Your task to perform on an android device: Go to sound settings Image 0: 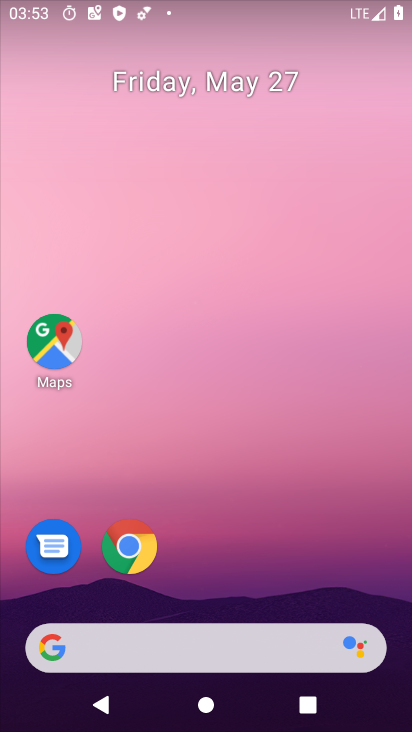
Step 0: drag from (367, 472) to (320, 201)
Your task to perform on an android device: Go to sound settings Image 1: 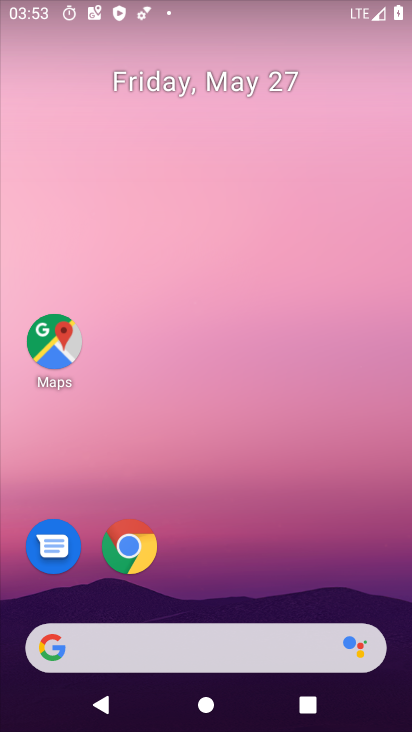
Step 1: drag from (387, 699) to (307, 170)
Your task to perform on an android device: Go to sound settings Image 2: 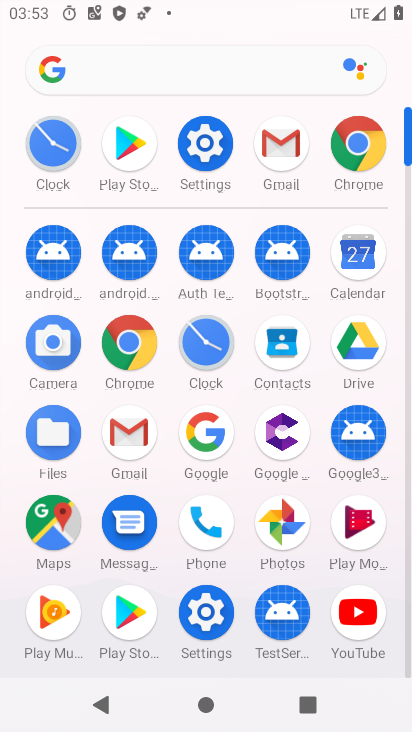
Step 2: click (205, 158)
Your task to perform on an android device: Go to sound settings Image 3: 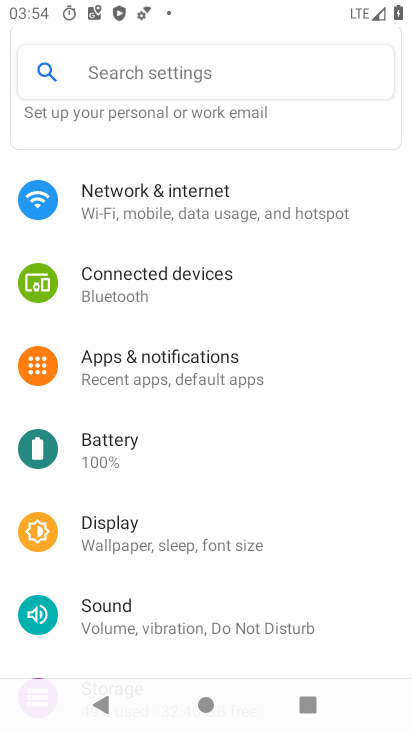
Step 3: click (118, 607)
Your task to perform on an android device: Go to sound settings Image 4: 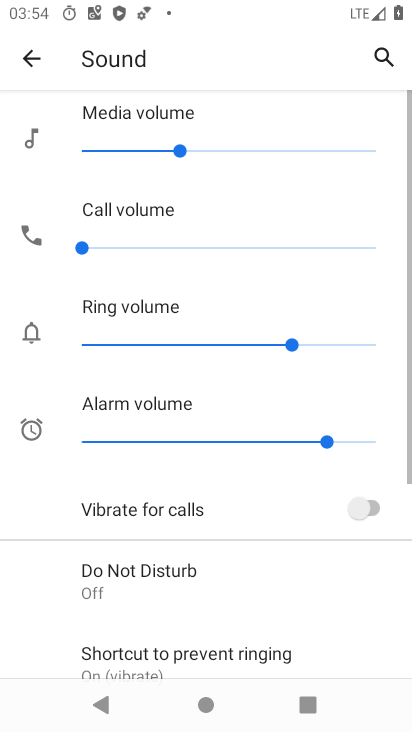
Step 4: task complete